Your task to perform on an android device: Open settings Image 0: 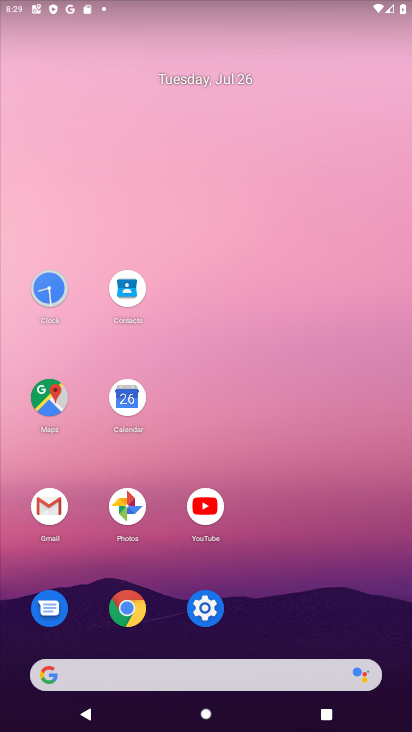
Step 0: click (203, 603)
Your task to perform on an android device: Open settings Image 1: 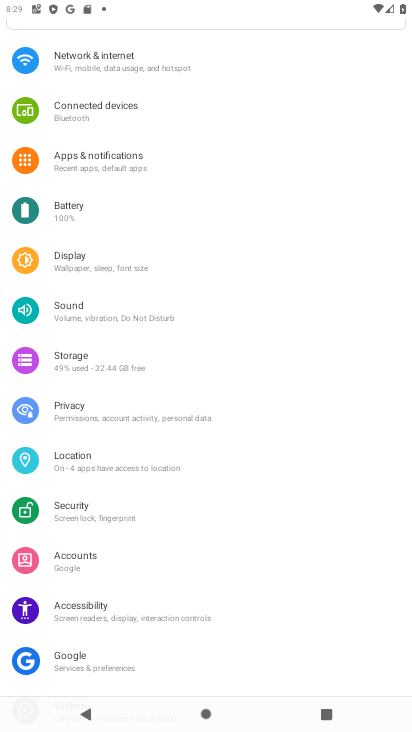
Step 1: task complete